Your task to perform on an android device: Search for vegetarian restaurants on Maps Image 0: 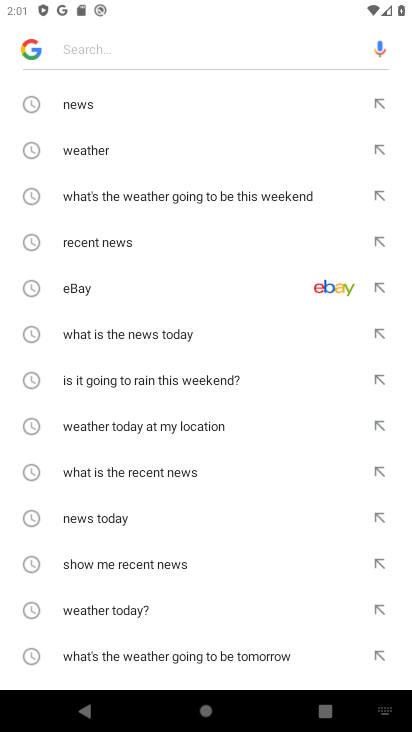
Step 0: press home button
Your task to perform on an android device: Search for vegetarian restaurants on Maps Image 1: 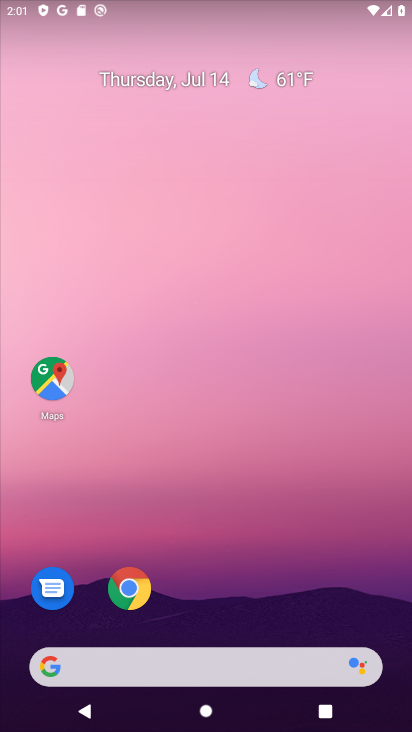
Step 1: click (55, 380)
Your task to perform on an android device: Search for vegetarian restaurants on Maps Image 2: 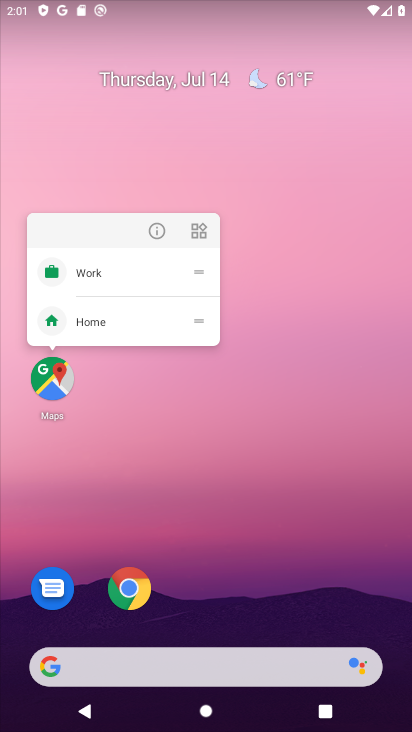
Step 2: click (59, 382)
Your task to perform on an android device: Search for vegetarian restaurants on Maps Image 3: 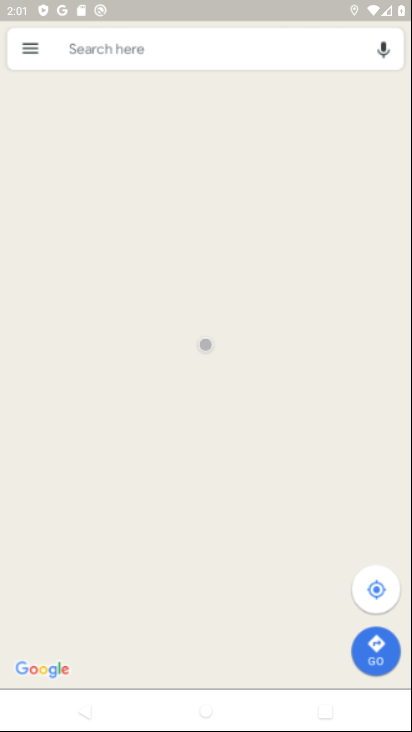
Step 3: click (188, 51)
Your task to perform on an android device: Search for vegetarian restaurants on Maps Image 4: 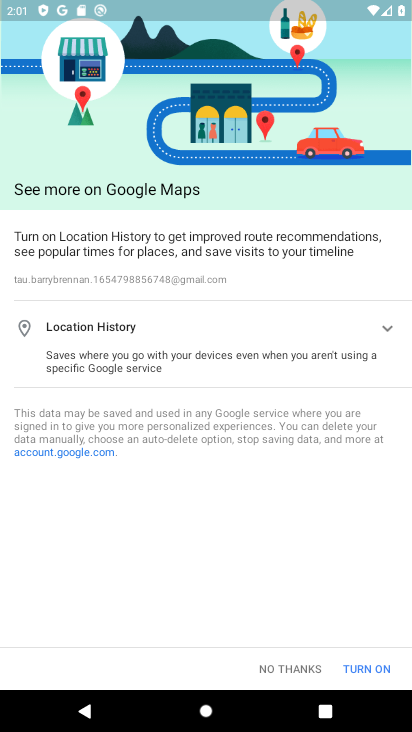
Step 4: click (284, 662)
Your task to perform on an android device: Search for vegetarian restaurants on Maps Image 5: 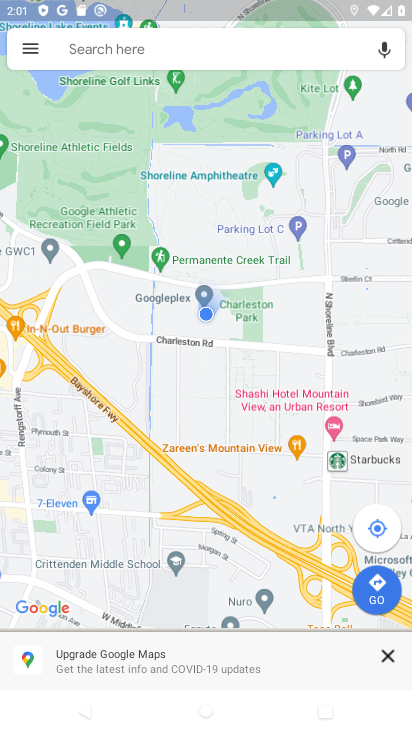
Step 5: click (193, 55)
Your task to perform on an android device: Search for vegetarian restaurants on Maps Image 6: 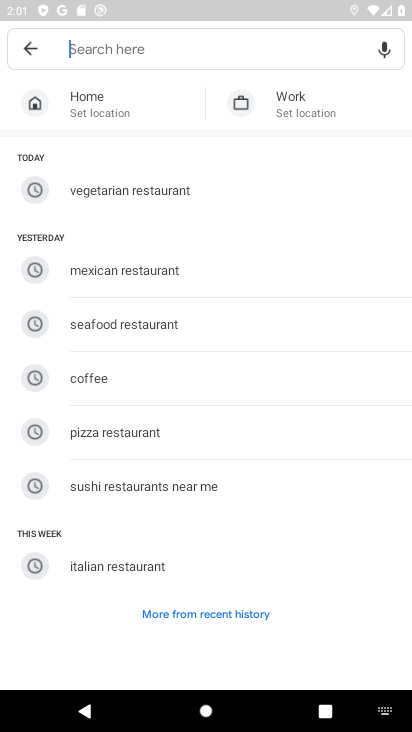
Step 6: click (151, 194)
Your task to perform on an android device: Search for vegetarian restaurants on Maps Image 7: 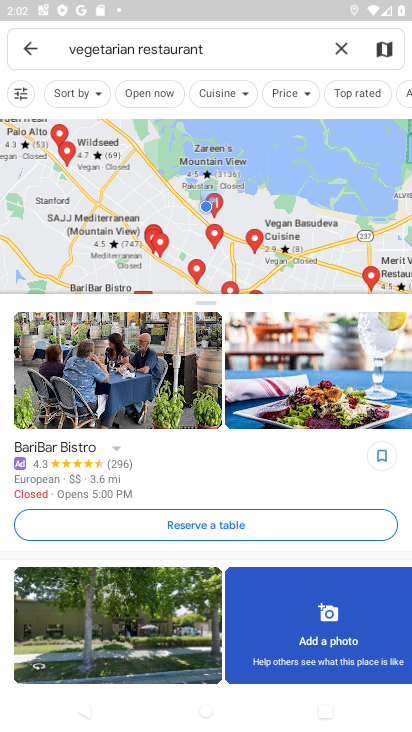
Step 7: task complete